Your task to perform on an android device: View the shopping cart on walmart. Search for "bose soundlink" on walmart, select the first entry, add it to the cart, then select checkout. Image 0: 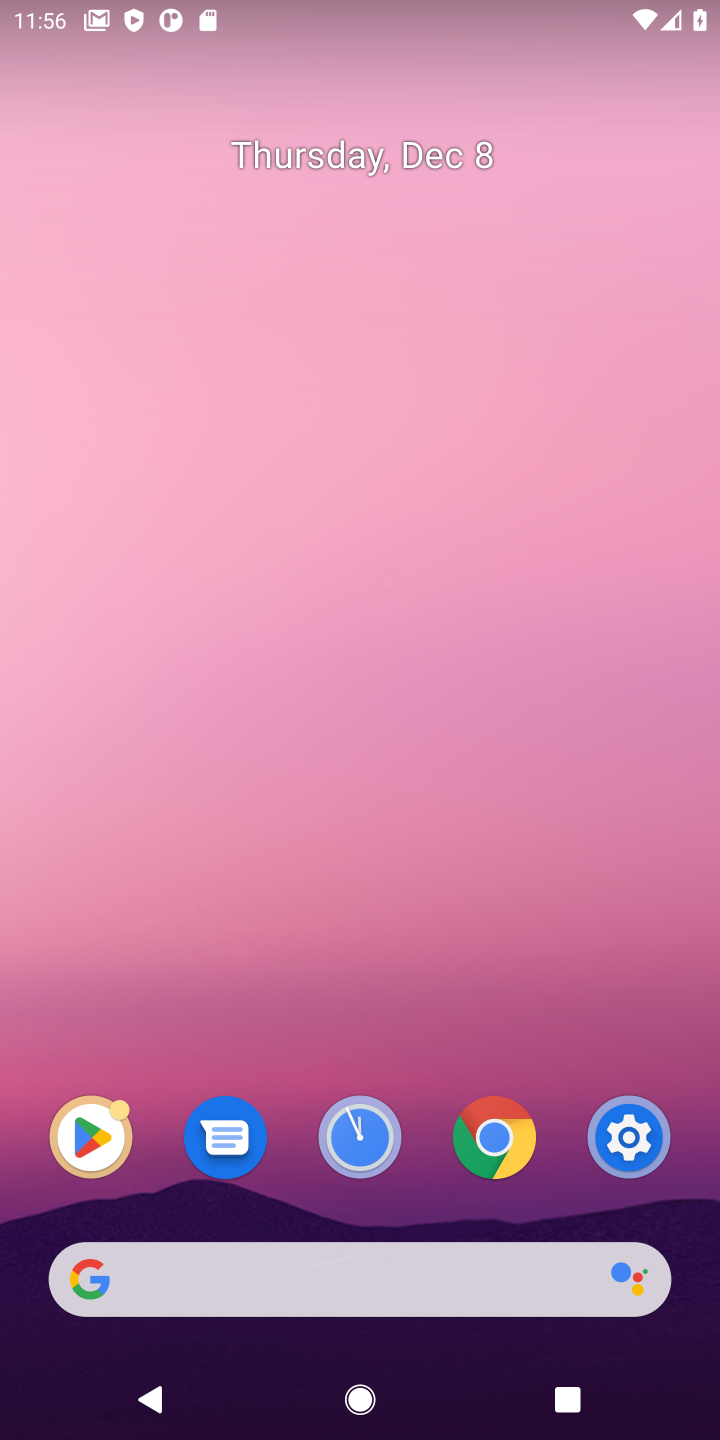
Step 0: click (443, 1261)
Your task to perform on an android device: View the shopping cart on walmart. Search for "bose soundlink" on walmart, select the first entry, add it to the cart, then select checkout. Image 1: 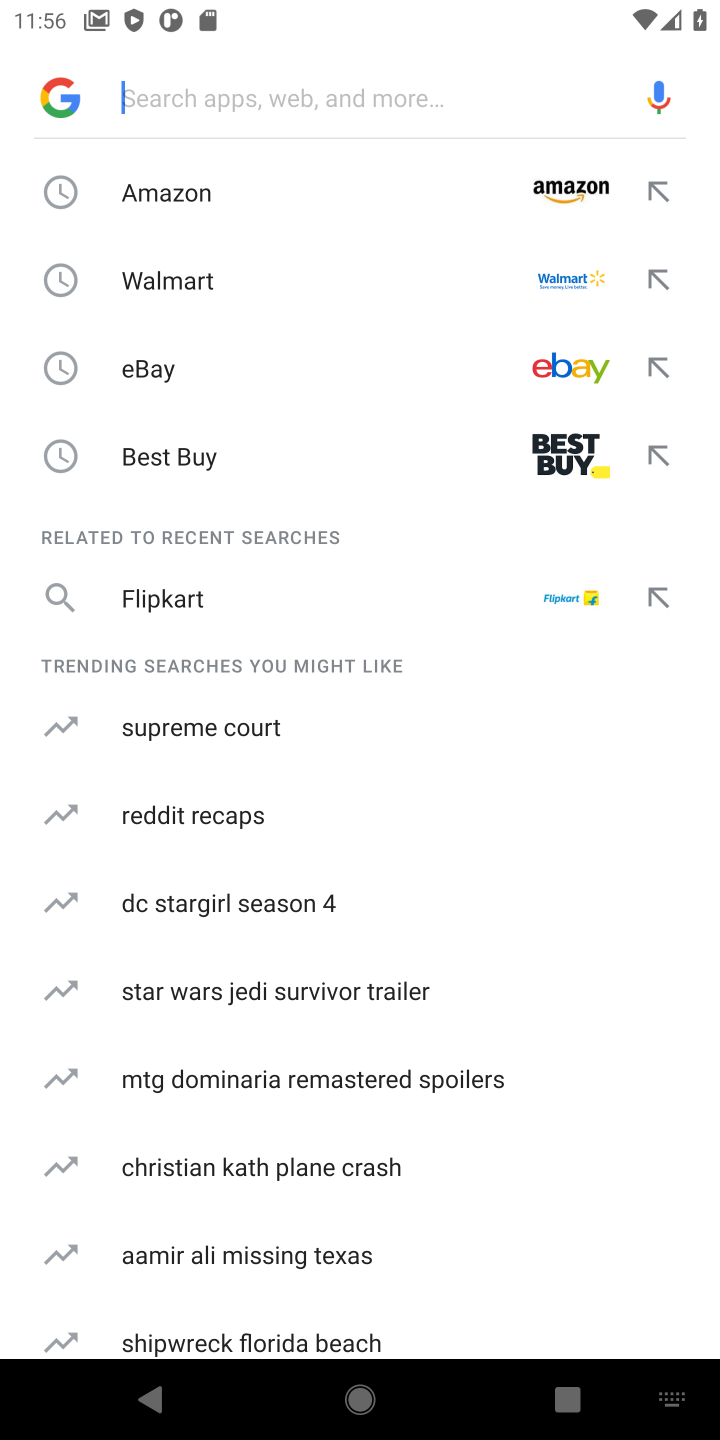
Step 1: click (231, 300)
Your task to perform on an android device: View the shopping cart on walmart. Search for "bose soundlink" on walmart, select the first entry, add it to the cart, then select checkout. Image 2: 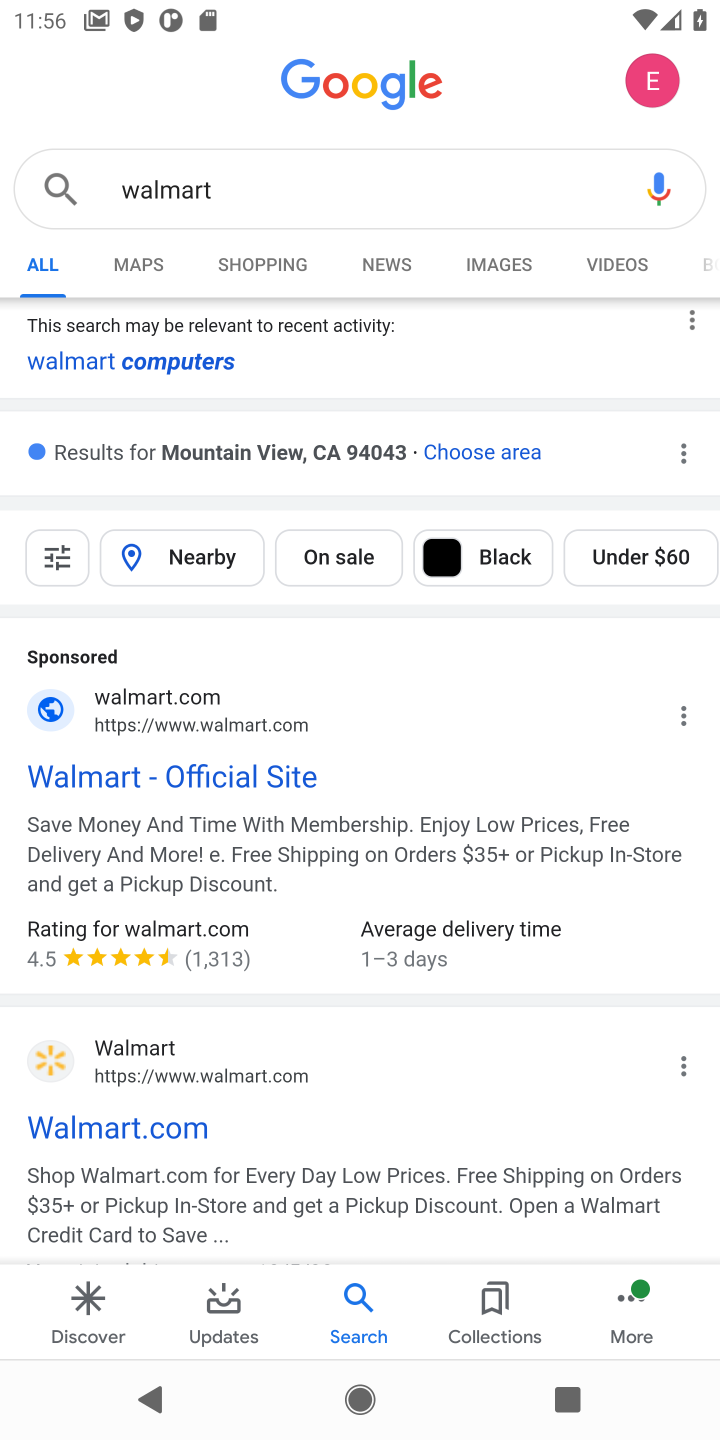
Step 2: click (153, 762)
Your task to perform on an android device: View the shopping cart on walmart. Search for "bose soundlink" on walmart, select the first entry, add it to the cart, then select checkout. Image 3: 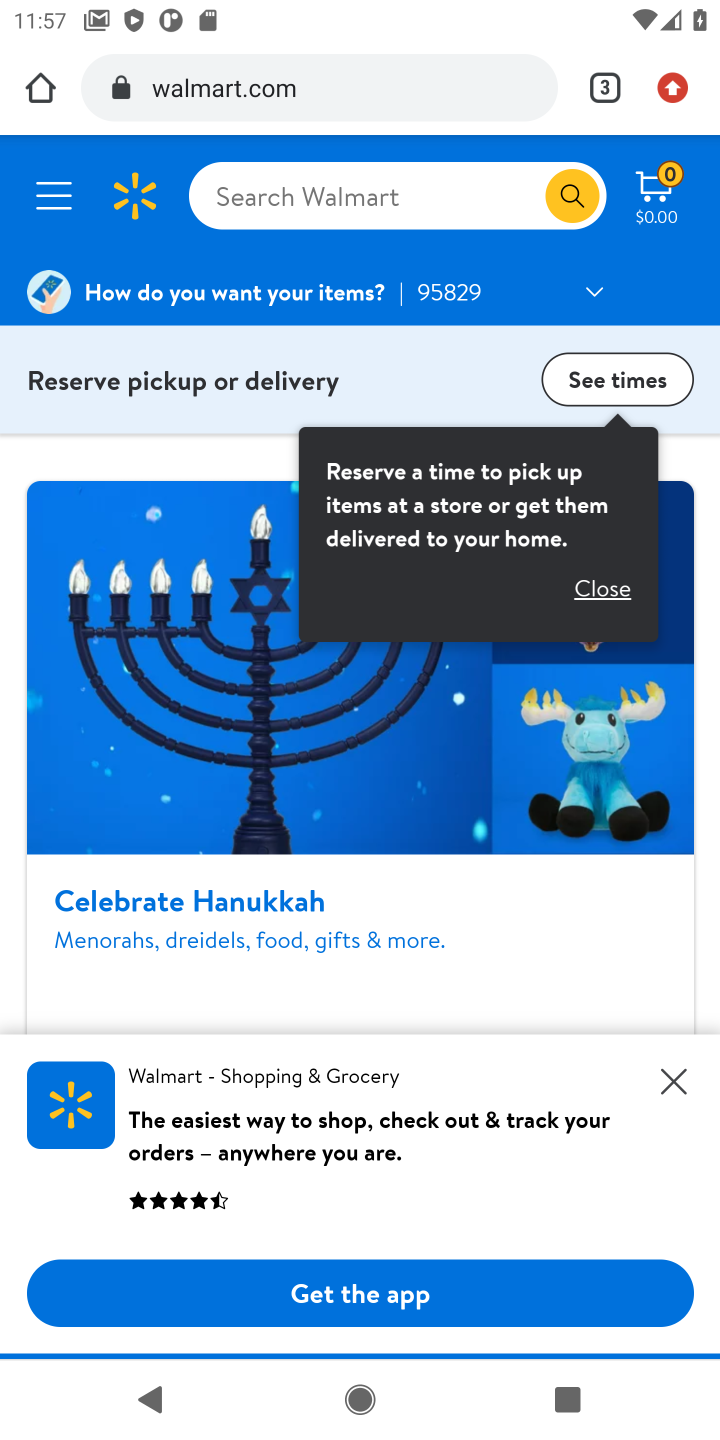
Step 3: click (256, 210)
Your task to perform on an android device: View the shopping cart on walmart. Search for "bose soundlink" on walmart, select the first entry, add it to the cart, then select checkout. Image 4: 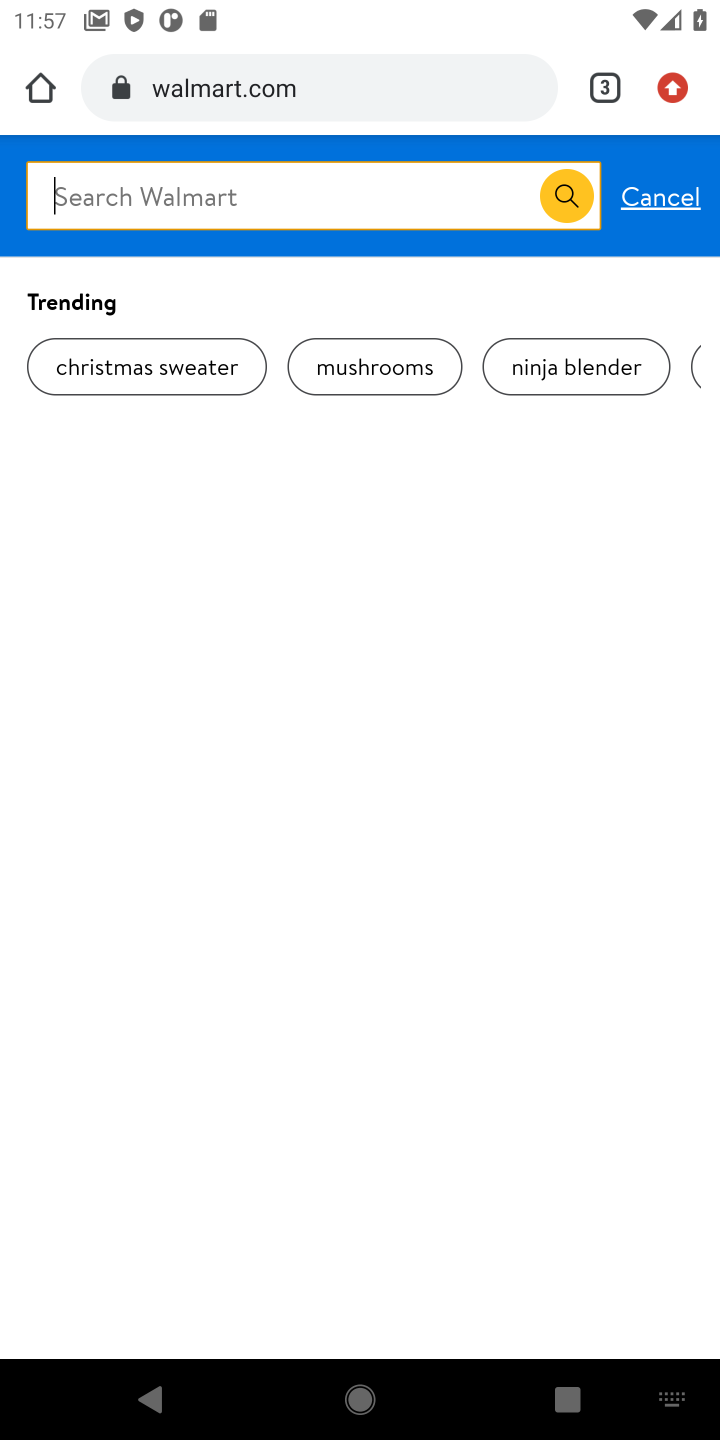
Step 4: type "bose soundlink"
Your task to perform on an android device: View the shopping cart on walmart. Search for "bose soundlink" on walmart, select the first entry, add it to the cart, then select checkout. Image 5: 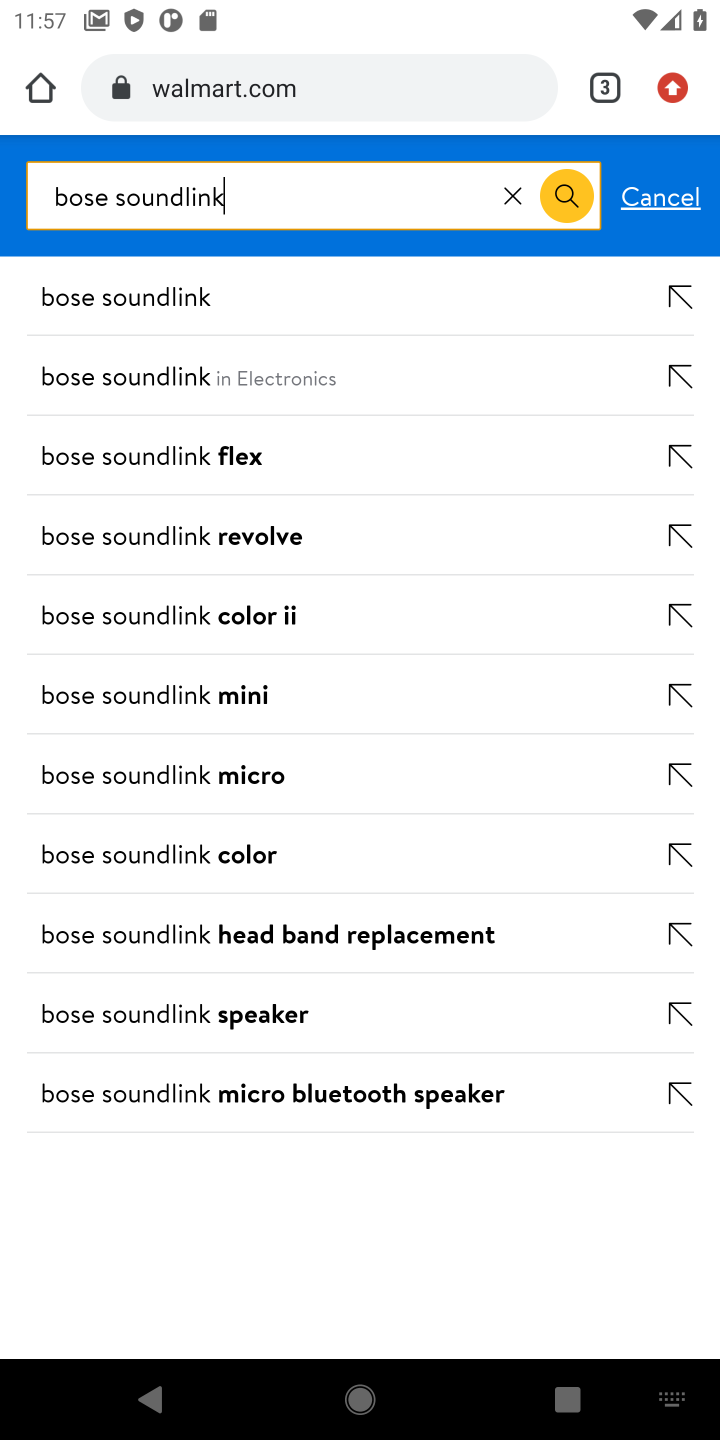
Step 5: click (99, 301)
Your task to perform on an android device: View the shopping cart on walmart. Search for "bose soundlink" on walmart, select the first entry, add it to the cart, then select checkout. Image 6: 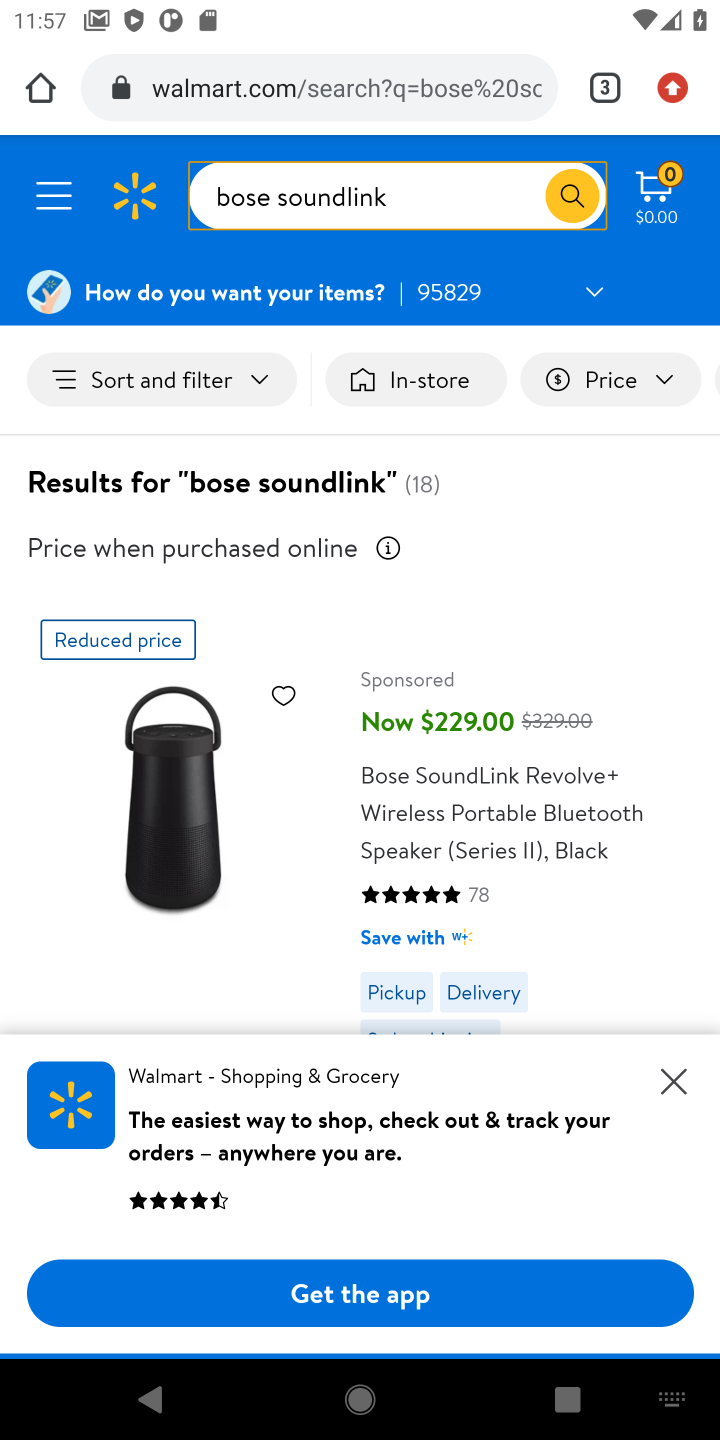
Step 6: click (676, 1078)
Your task to perform on an android device: View the shopping cart on walmart. Search for "bose soundlink" on walmart, select the first entry, add it to the cart, then select checkout. Image 7: 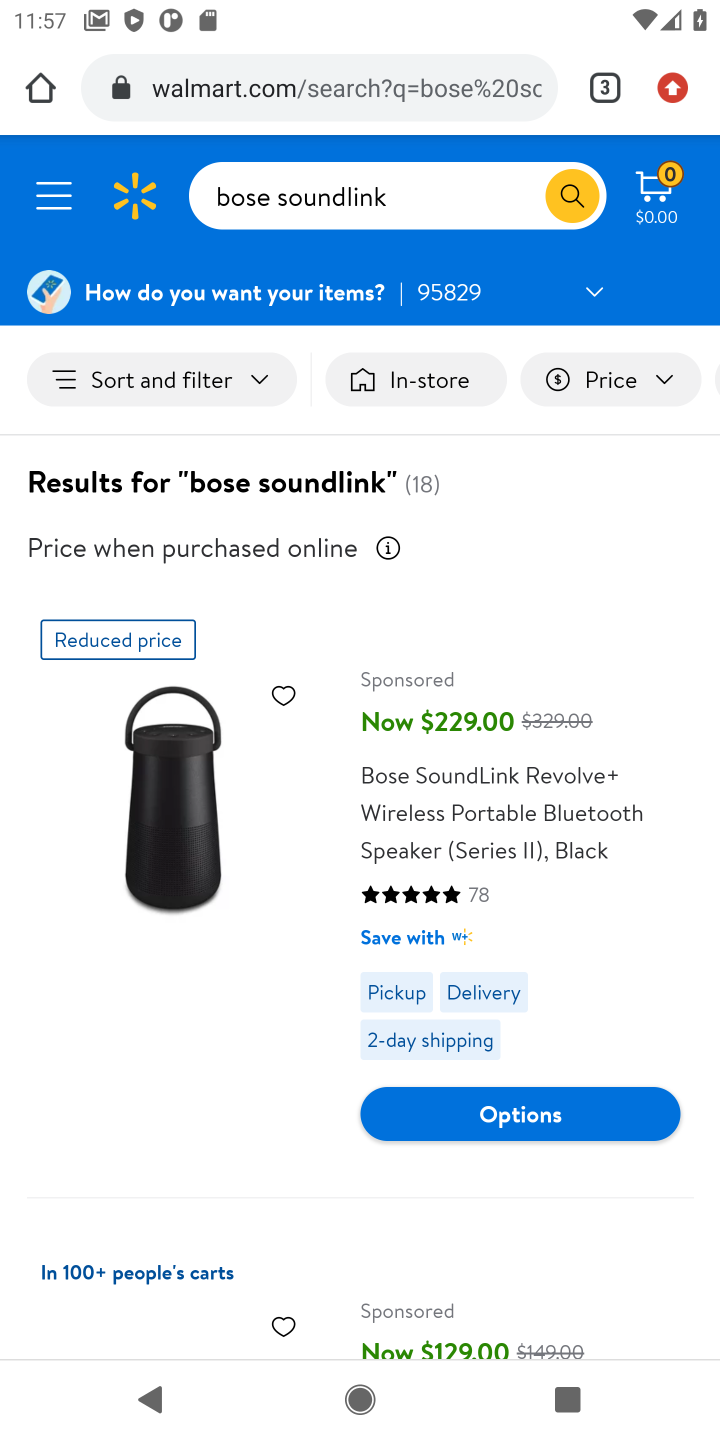
Step 7: click (552, 1140)
Your task to perform on an android device: View the shopping cart on walmart. Search for "bose soundlink" on walmart, select the first entry, add it to the cart, then select checkout. Image 8: 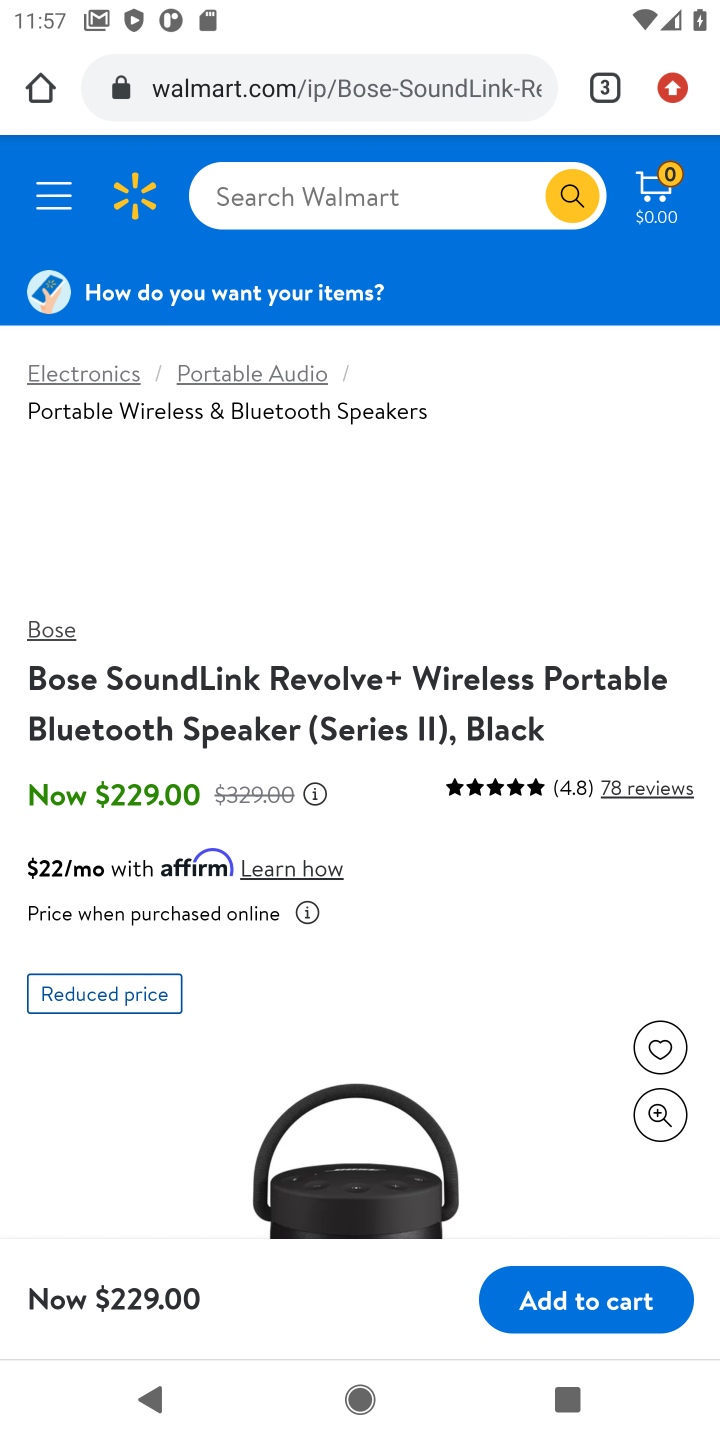
Step 8: click (602, 1285)
Your task to perform on an android device: View the shopping cart on walmart. Search for "bose soundlink" on walmart, select the first entry, add it to the cart, then select checkout. Image 9: 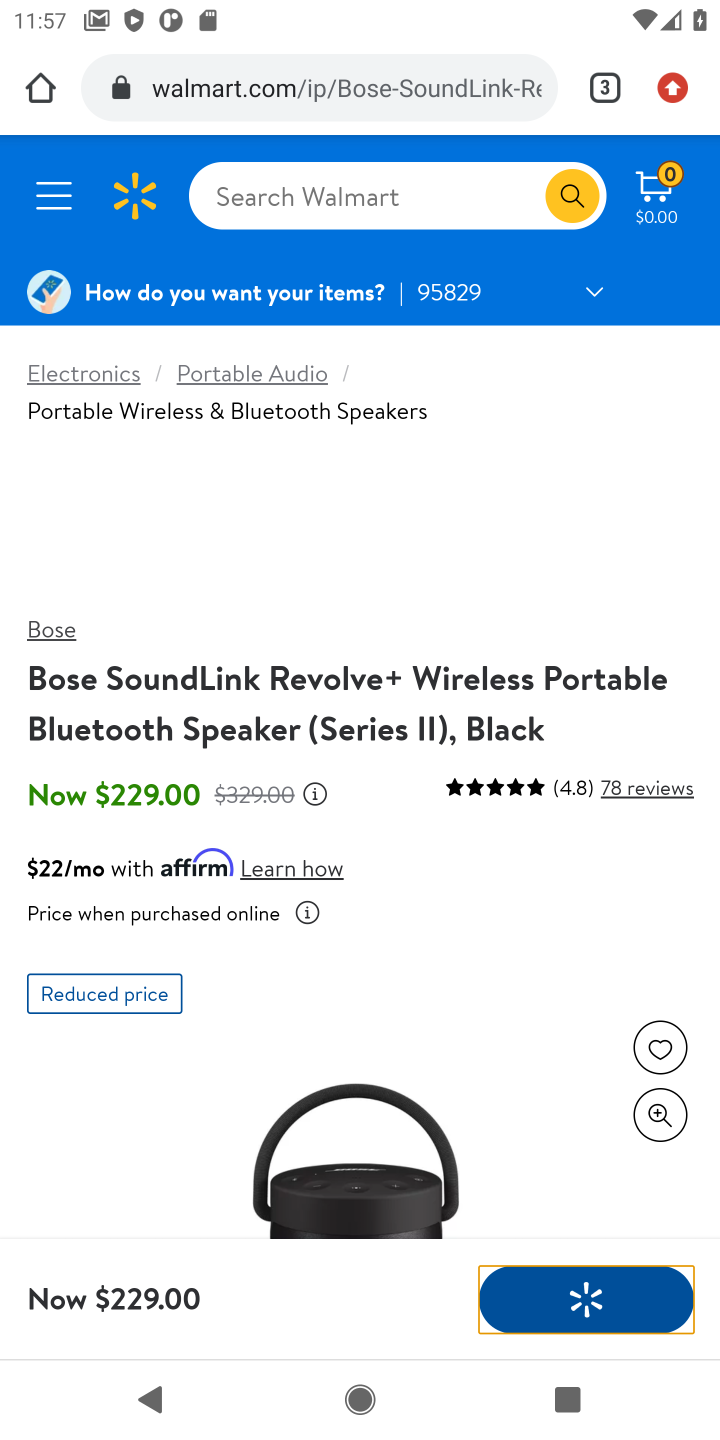
Step 9: task complete